Your task to perform on an android device: Open ESPN.com Image 0: 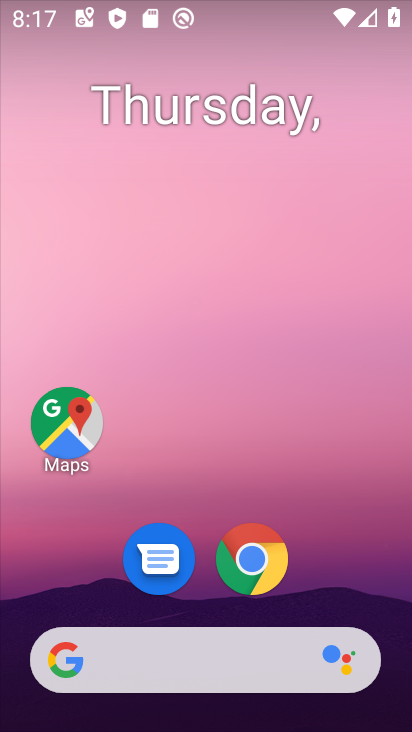
Step 0: click (239, 554)
Your task to perform on an android device: Open ESPN.com Image 1: 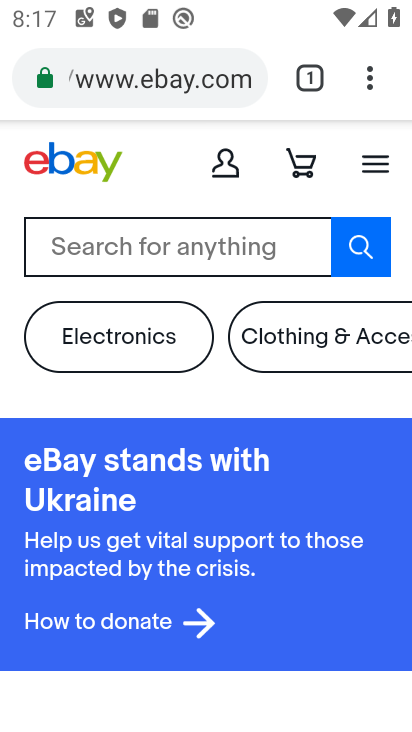
Step 1: click (313, 70)
Your task to perform on an android device: Open ESPN.com Image 2: 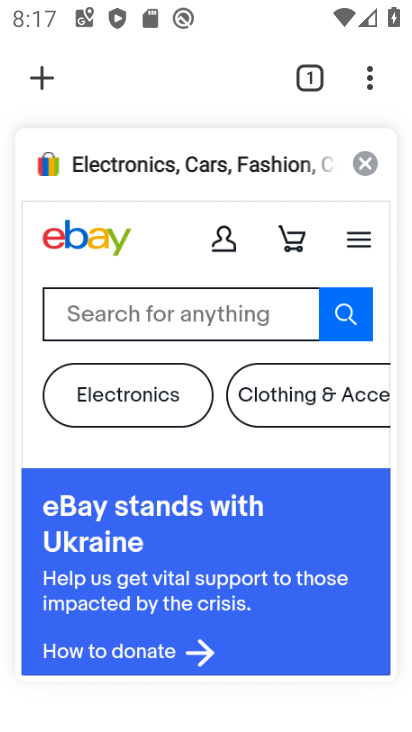
Step 2: click (43, 73)
Your task to perform on an android device: Open ESPN.com Image 3: 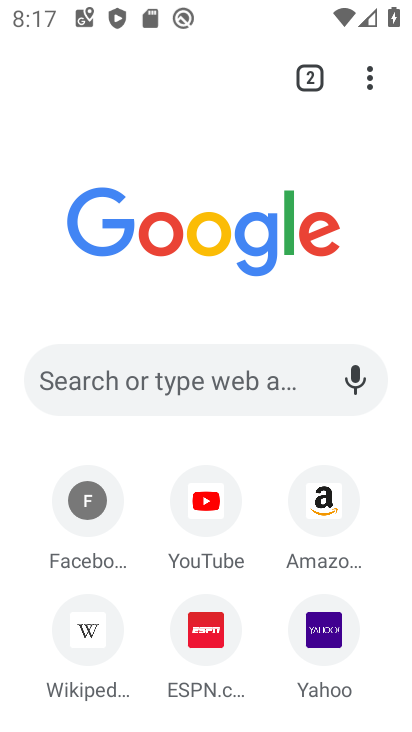
Step 3: click (192, 627)
Your task to perform on an android device: Open ESPN.com Image 4: 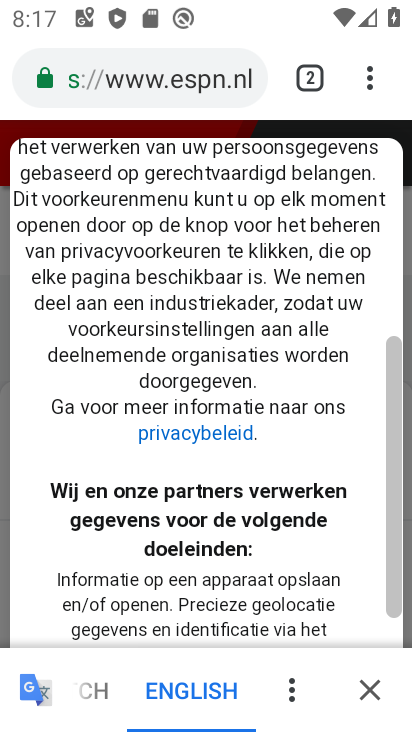
Step 4: drag from (235, 537) to (207, 50)
Your task to perform on an android device: Open ESPN.com Image 5: 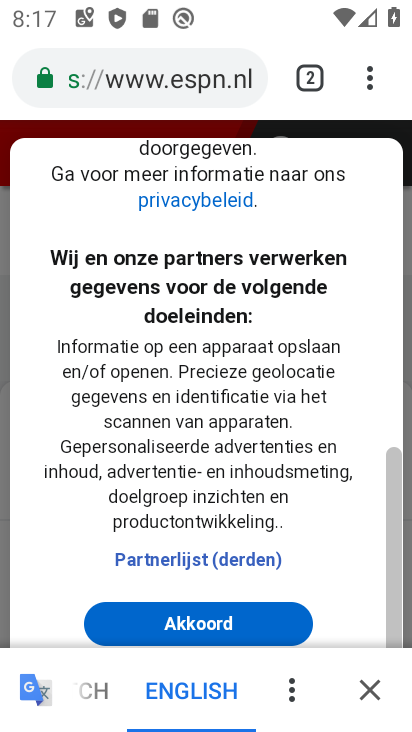
Step 5: click (198, 614)
Your task to perform on an android device: Open ESPN.com Image 6: 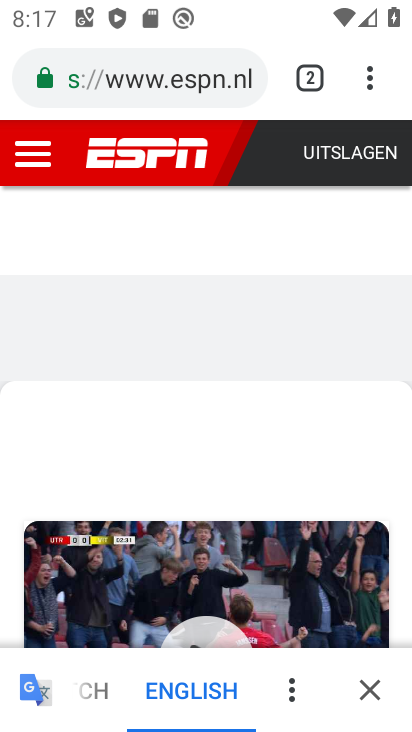
Step 6: task complete